Your task to perform on an android device: add a label to a message in the gmail app Image 0: 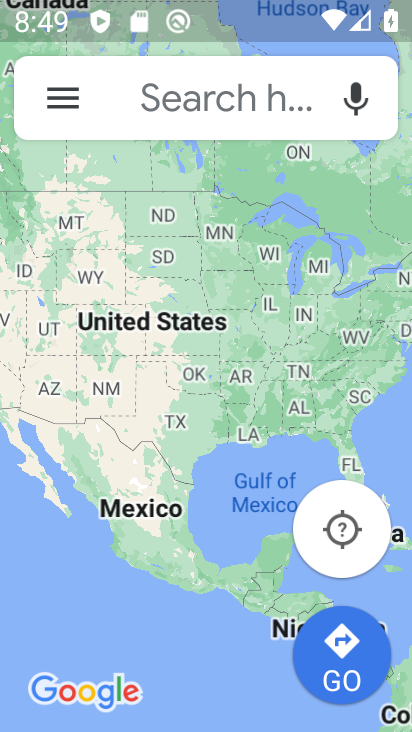
Step 0: press home button
Your task to perform on an android device: add a label to a message in the gmail app Image 1: 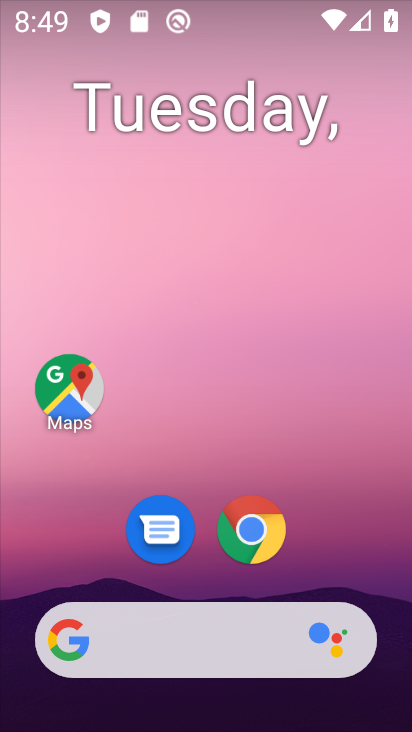
Step 1: drag from (366, 570) to (330, 214)
Your task to perform on an android device: add a label to a message in the gmail app Image 2: 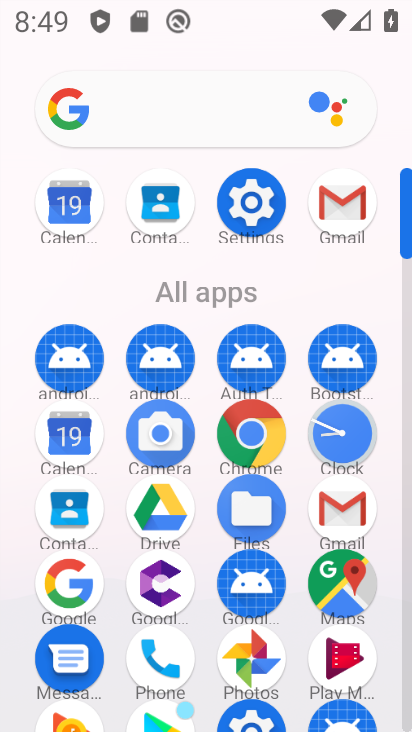
Step 2: click (409, 702)
Your task to perform on an android device: add a label to a message in the gmail app Image 3: 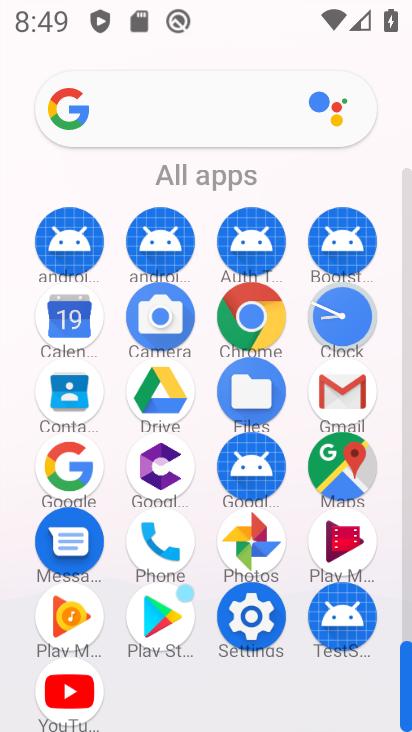
Step 3: click (332, 387)
Your task to perform on an android device: add a label to a message in the gmail app Image 4: 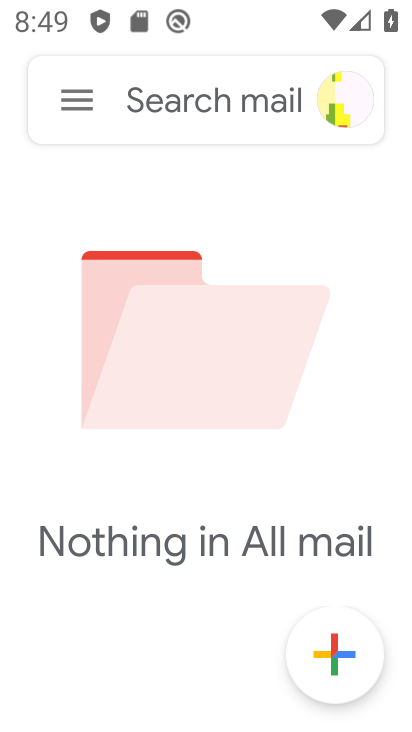
Step 4: click (79, 105)
Your task to perform on an android device: add a label to a message in the gmail app Image 5: 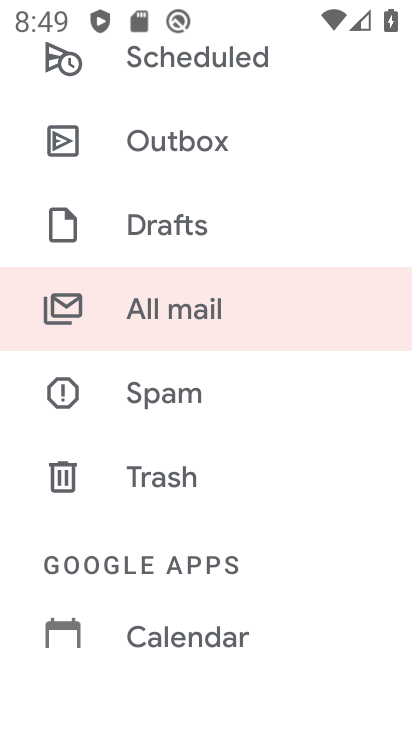
Step 5: click (165, 314)
Your task to perform on an android device: add a label to a message in the gmail app Image 6: 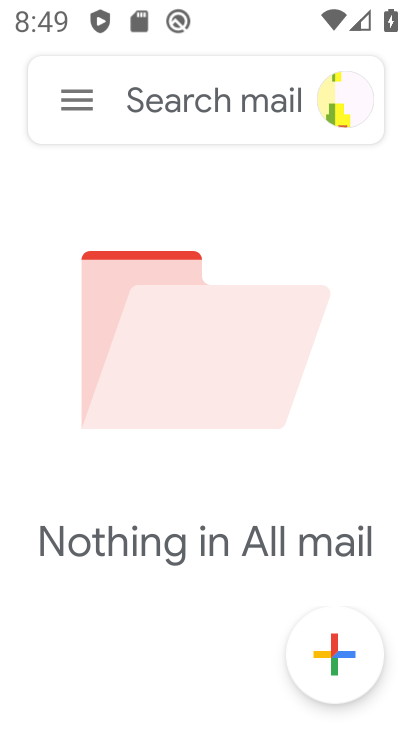
Step 6: task complete